Your task to perform on an android device: change the clock display to show seconds Image 0: 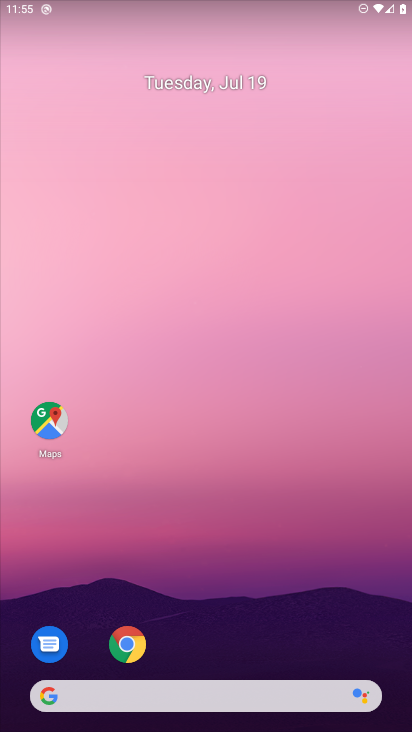
Step 0: drag from (34, 669) to (172, 54)
Your task to perform on an android device: change the clock display to show seconds Image 1: 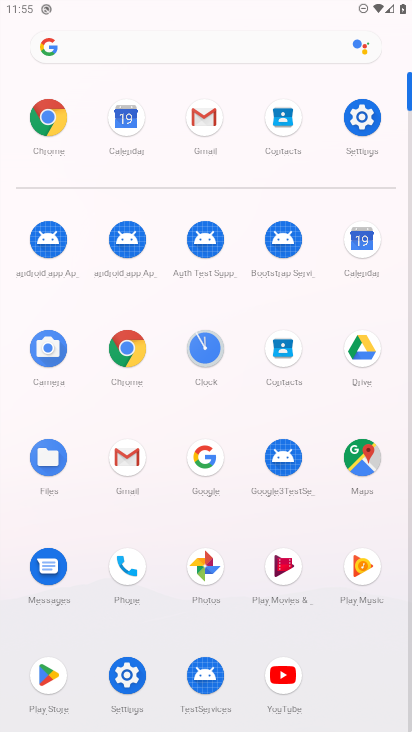
Step 1: click (197, 350)
Your task to perform on an android device: change the clock display to show seconds Image 2: 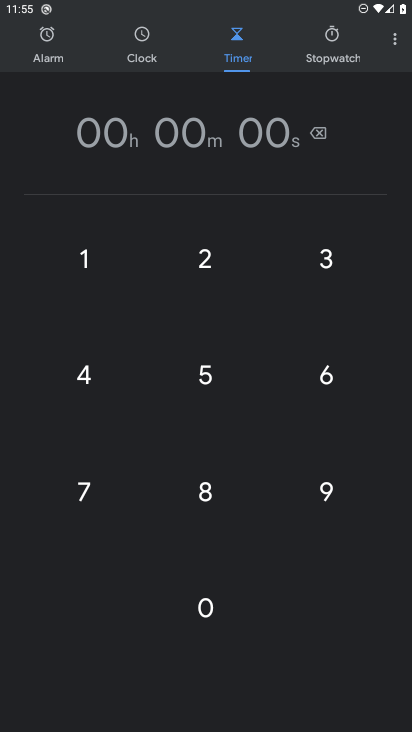
Step 2: click (394, 40)
Your task to perform on an android device: change the clock display to show seconds Image 3: 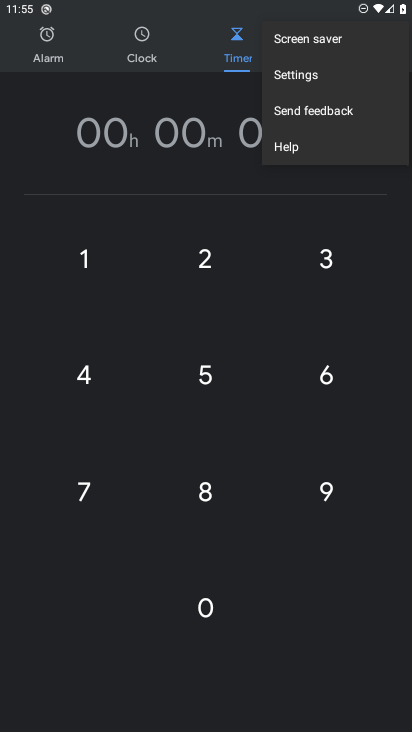
Step 3: click (313, 83)
Your task to perform on an android device: change the clock display to show seconds Image 4: 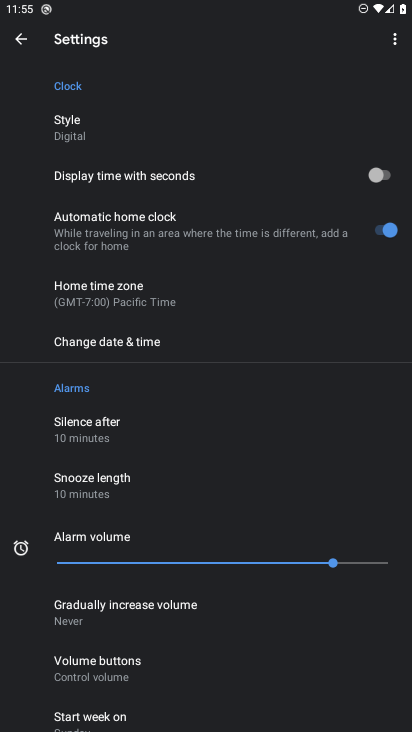
Step 4: click (373, 177)
Your task to perform on an android device: change the clock display to show seconds Image 5: 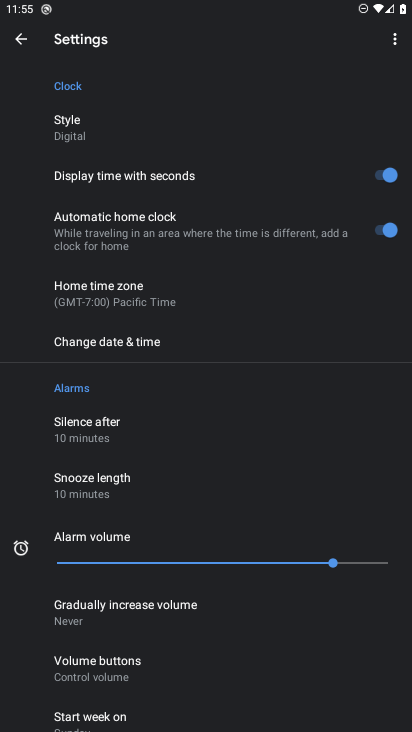
Step 5: task complete